Your task to perform on an android device: turn off priority inbox in the gmail app Image 0: 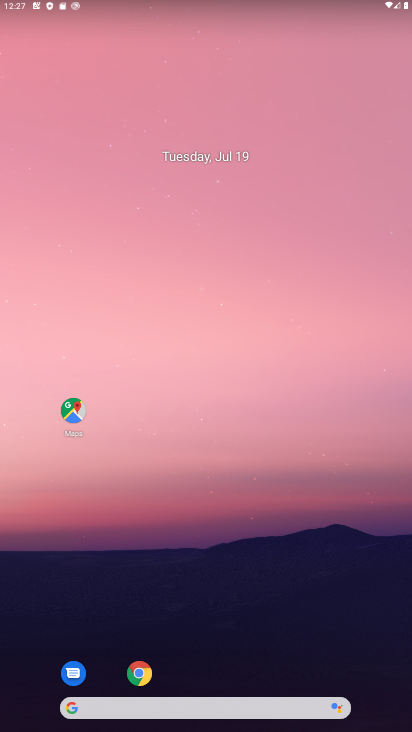
Step 0: drag from (391, 670) to (265, 67)
Your task to perform on an android device: turn off priority inbox in the gmail app Image 1: 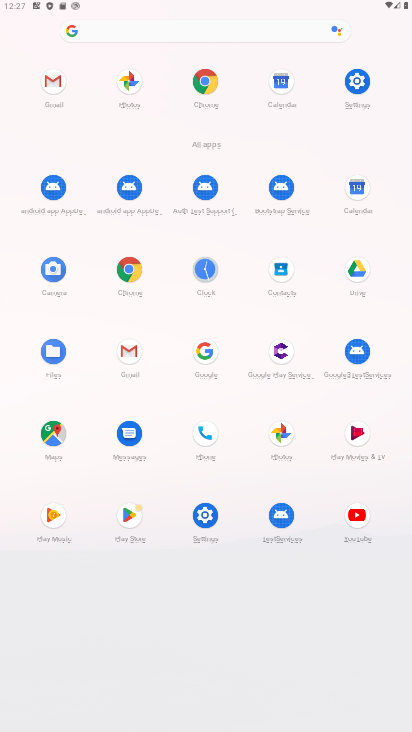
Step 1: click (55, 80)
Your task to perform on an android device: turn off priority inbox in the gmail app Image 2: 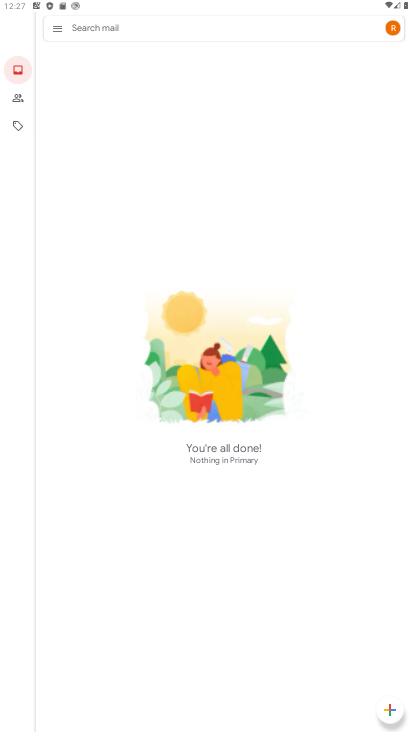
Step 2: click (56, 26)
Your task to perform on an android device: turn off priority inbox in the gmail app Image 3: 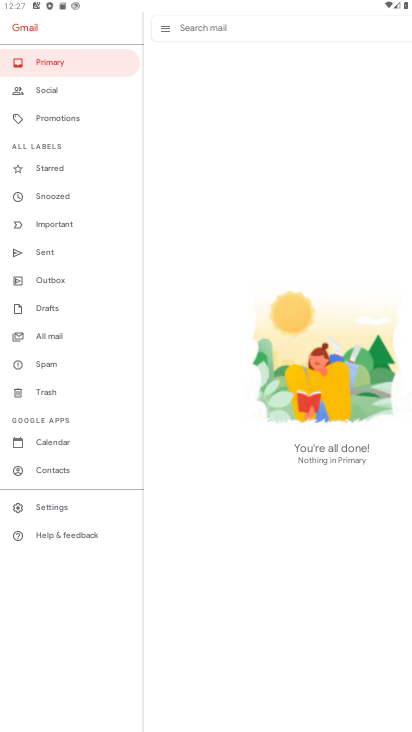
Step 3: click (69, 511)
Your task to perform on an android device: turn off priority inbox in the gmail app Image 4: 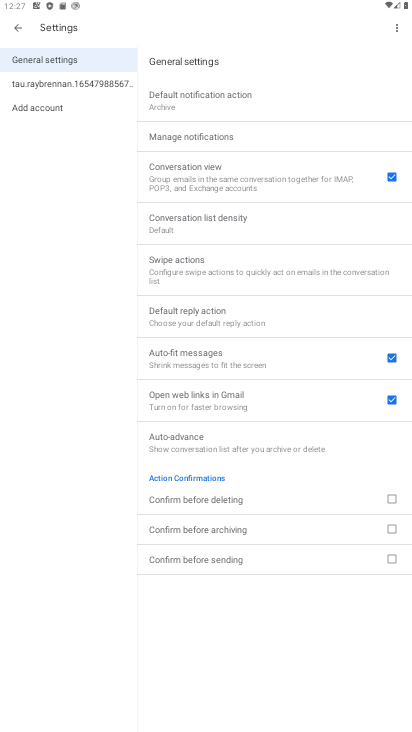
Step 4: click (89, 87)
Your task to perform on an android device: turn off priority inbox in the gmail app Image 5: 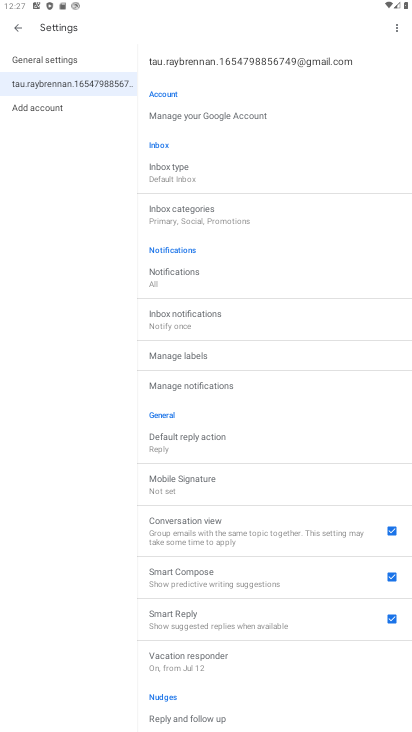
Step 5: click (188, 177)
Your task to perform on an android device: turn off priority inbox in the gmail app Image 6: 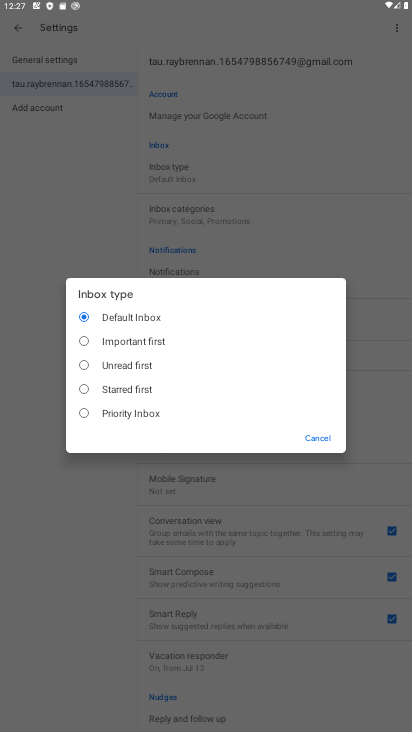
Step 6: task complete